Your task to perform on an android device: turn off location history Image 0: 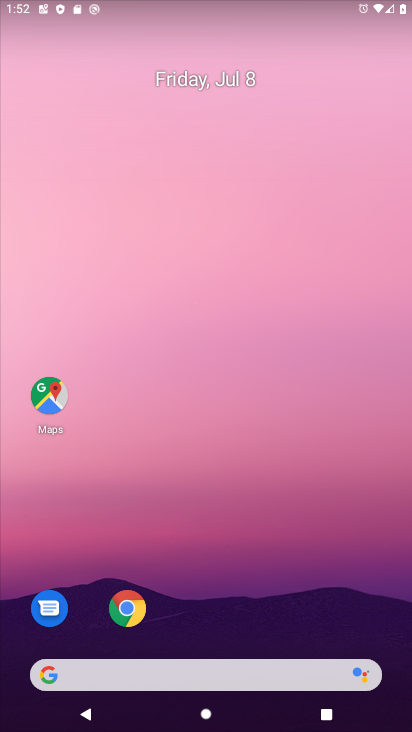
Step 0: drag from (194, 11) to (89, 578)
Your task to perform on an android device: turn off location history Image 1: 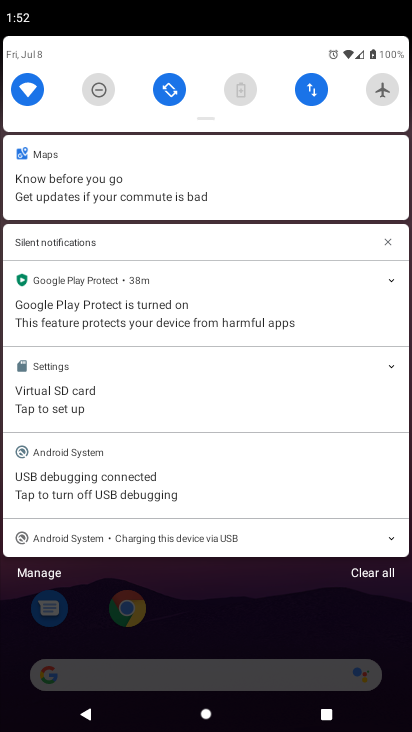
Step 1: drag from (204, 79) to (186, 614)
Your task to perform on an android device: turn off location history Image 2: 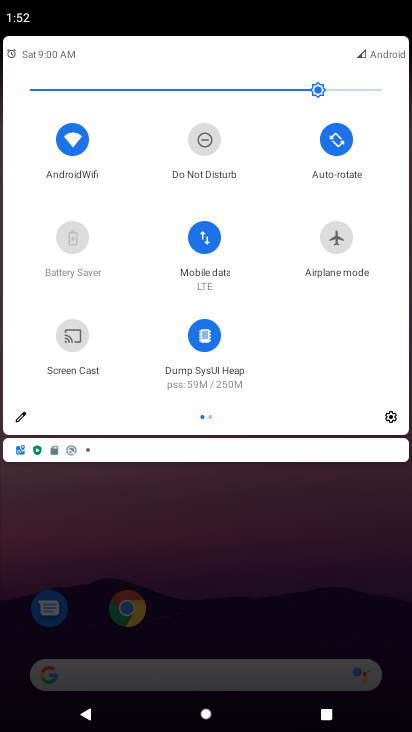
Step 2: click (397, 421)
Your task to perform on an android device: turn off location history Image 3: 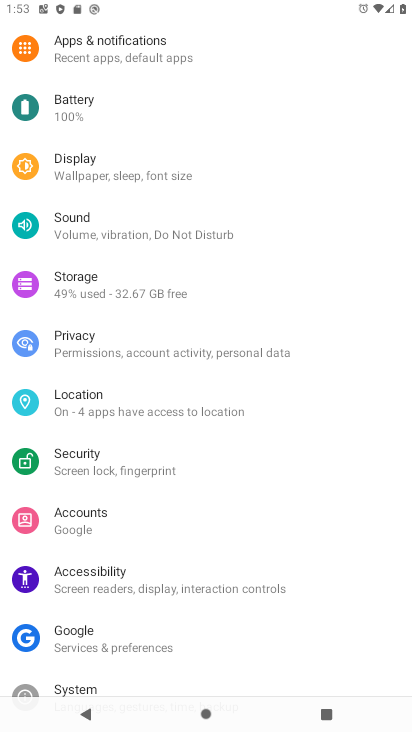
Step 3: click (104, 407)
Your task to perform on an android device: turn off location history Image 4: 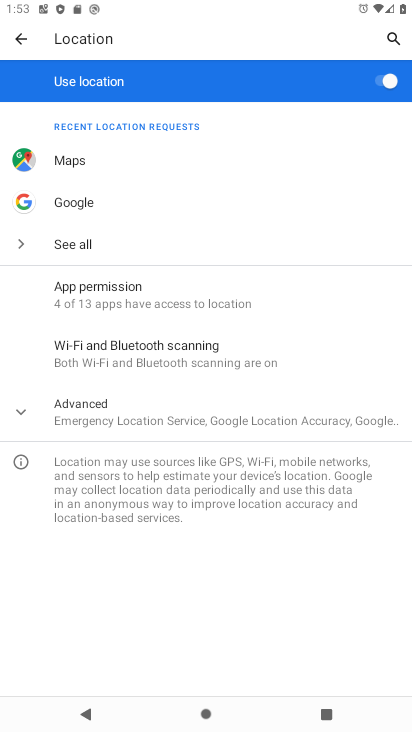
Step 4: click (140, 424)
Your task to perform on an android device: turn off location history Image 5: 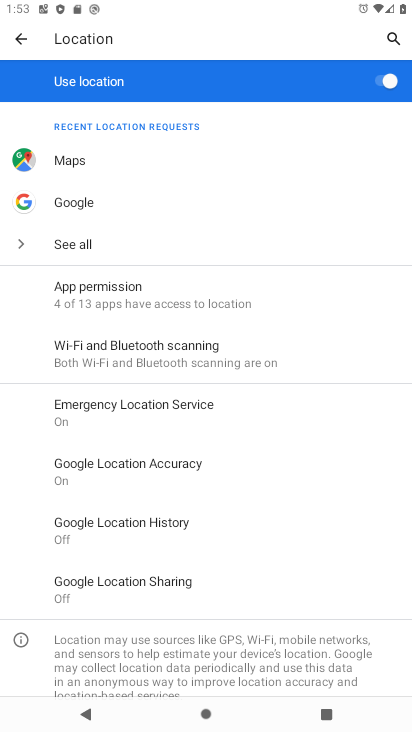
Step 5: click (154, 516)
Your task to perform on an android device: turn off location history Image 6: 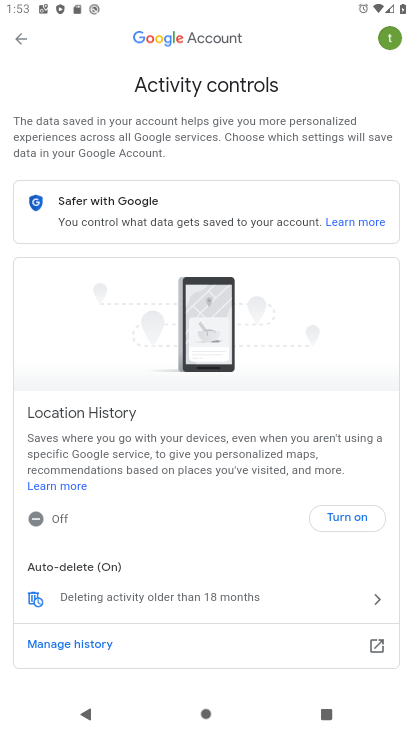
Step 6: task complete